Your task to perform on an android device: turn on the 12-hour format for clock Image 0: 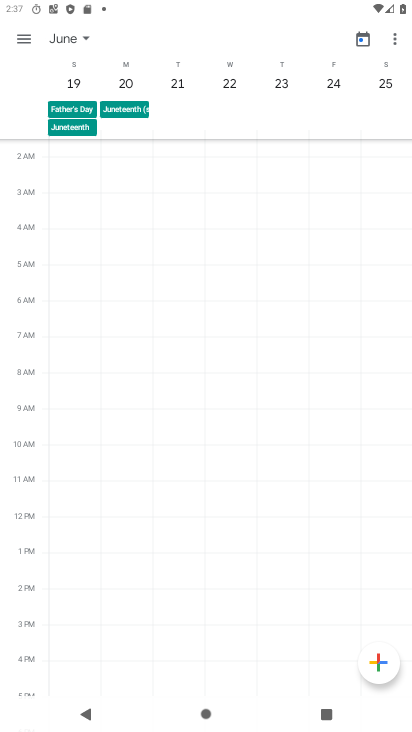
Step 0: press home button
Your task to perform on an android device: turn on the 12-hour format for clock Image 1: 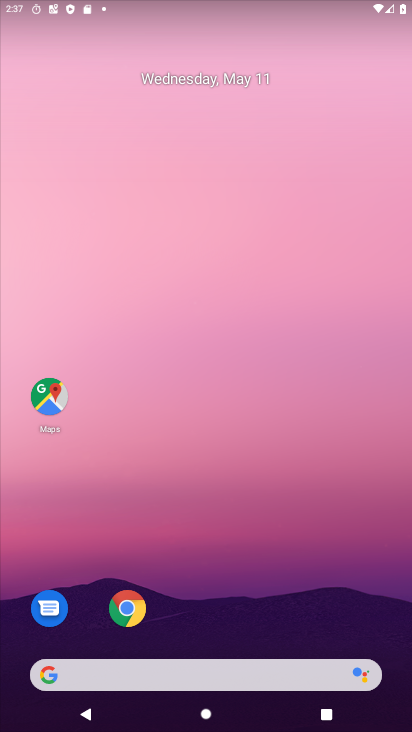
Step 1: drag from (142, 441) to (125, 248)
Your task to perform on an android device: turn on the 12-hour format for clock Image 2: 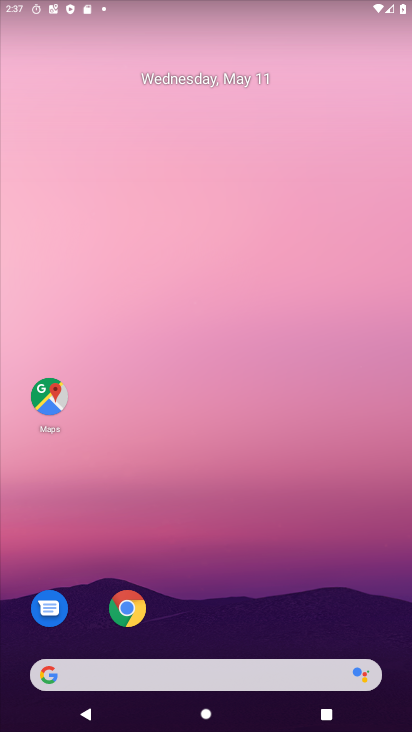
Step 2: drag from (284, 587) to (286, 385)
Your task to perform on an android device: turn on the 12-hour format for clock Image 3: 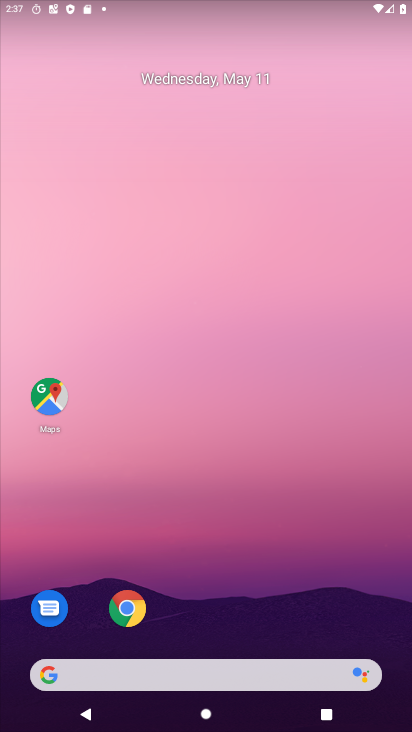
Step 3: drag from (275, 695) to (283, 344)
Your task to perform on an android device: turn on the 12-hour format for clock Image 4: 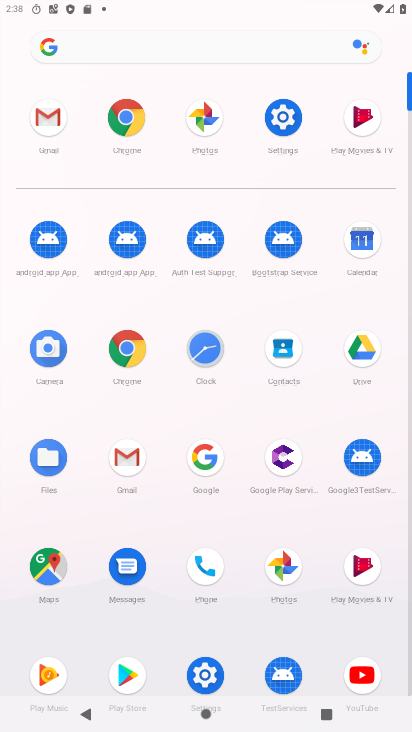
Step 4: click (200, 341)
Your task to perform on an android device: turn on the 12-hour format for clock Image 5: 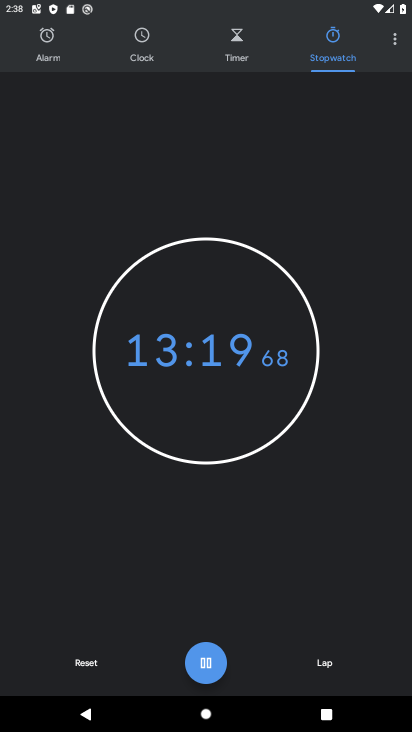
Step 5: click (124, 44)
Your task to perform on an android device: turn on the 12-hour format for clock Image 6: 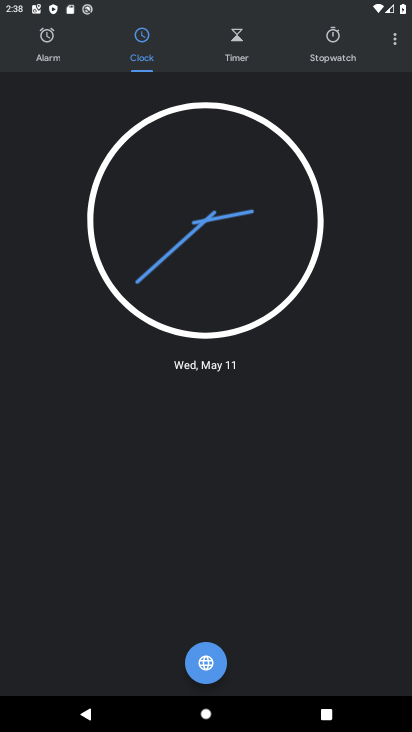
Step 6: click (200, 663)
Your task to perform on an android device: turn on the 12-hour format for clock Image 7: 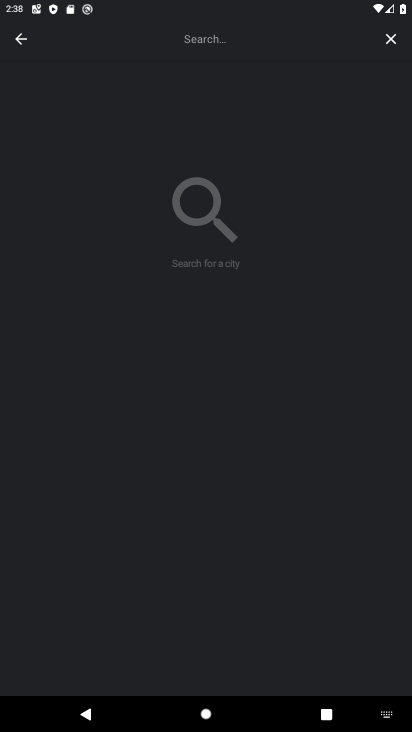
Step 7: click (192, 26)
Your task to perform on an android device: turn on the 12-hour format for clock Image 8: 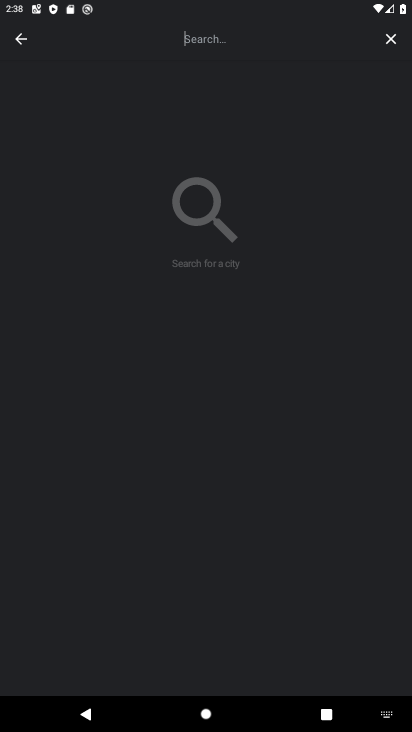
Step 8: type "12 hours"
Your task to perform on an android device: turn on the 12-hour format for clock Image 9: 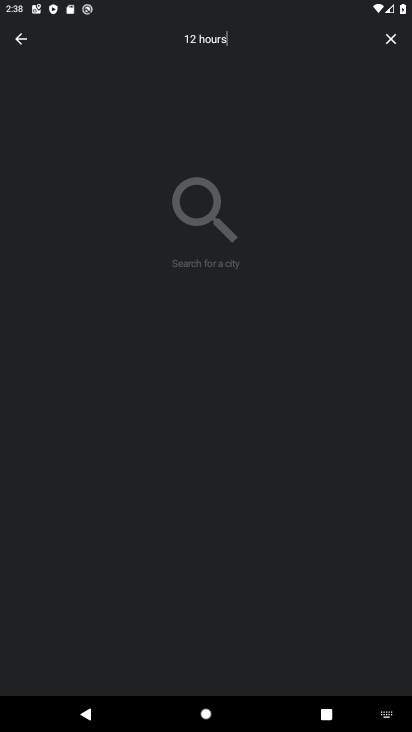
Step 9: task complete